Your task to perform on an android device: check data usage Image 0: 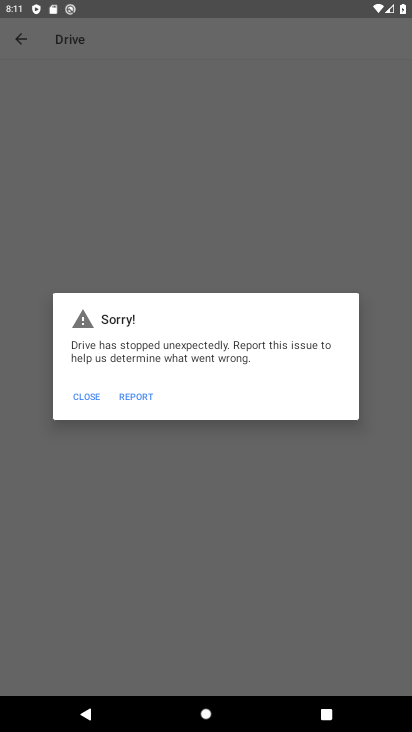
Step 0: press home button
Your task to perform on an android device: check data usage Image 1: 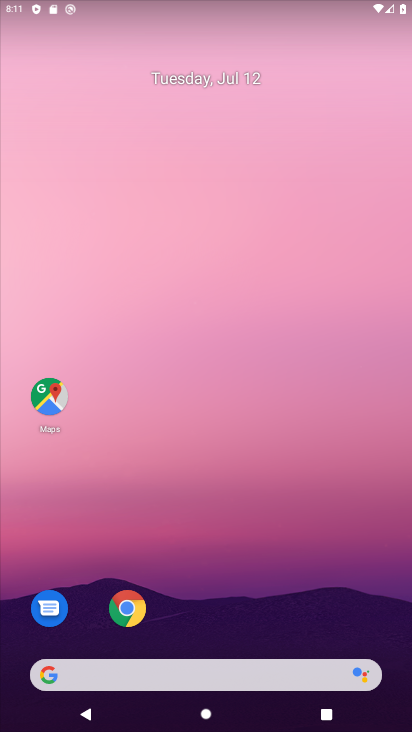
Step 1: drag from (237, 563) to (237, 43)
Your task to perform on an android device: check data usage Image 2: 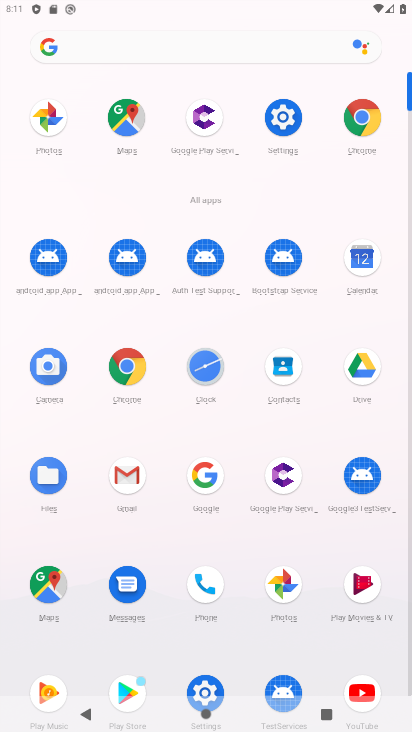
Step 2: click (276, 119)
Your task to perform on an android device: check data usage Image 3: 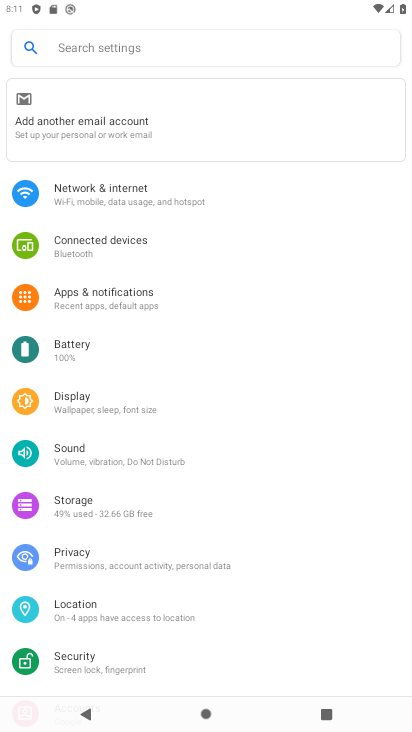
Step 3: click (216, 185)
Your task to perform on an android device: check data usage Image 4: 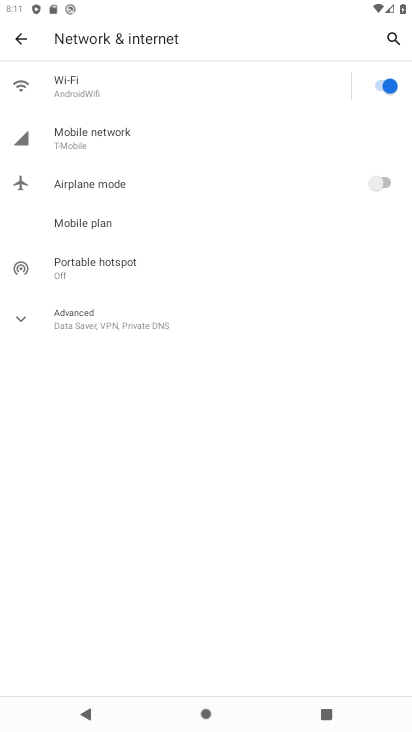
Step 4: click (101, 132)
Your task to perform on an android device: check data usage Image 5: 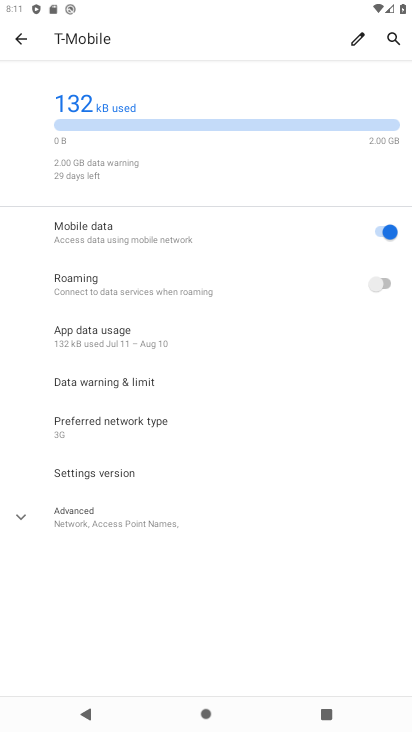
Step 5: click (145, 335)
Your task to perform on an android device: check data usage Image 6: 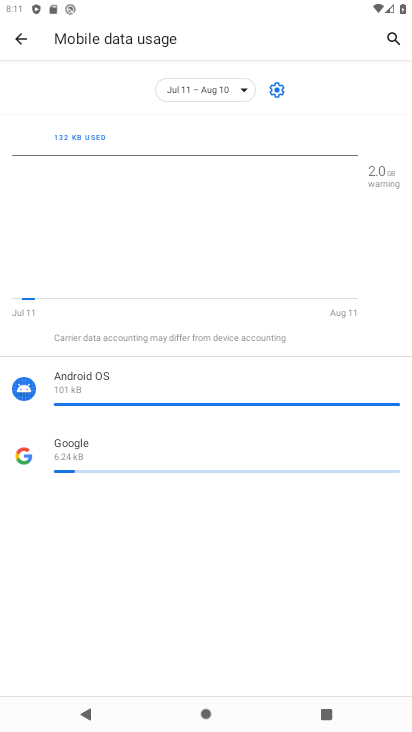
Step 6: task complete